Your task to perform on an android device: Go to Reddit.com Image 0: 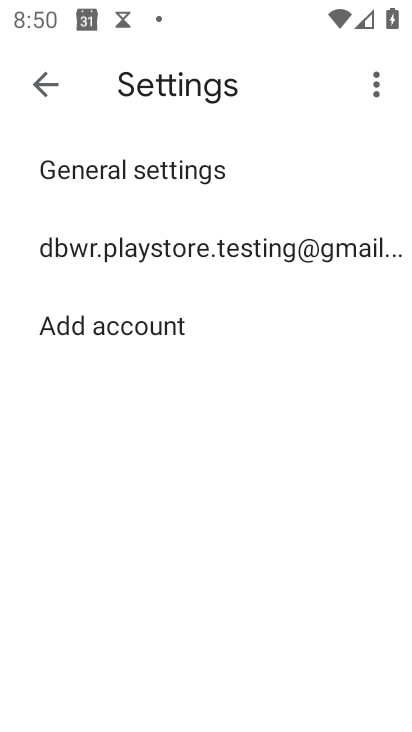
Step 0: press home button
Your task to perform on an android device: Go to Reddit.com Image 1: 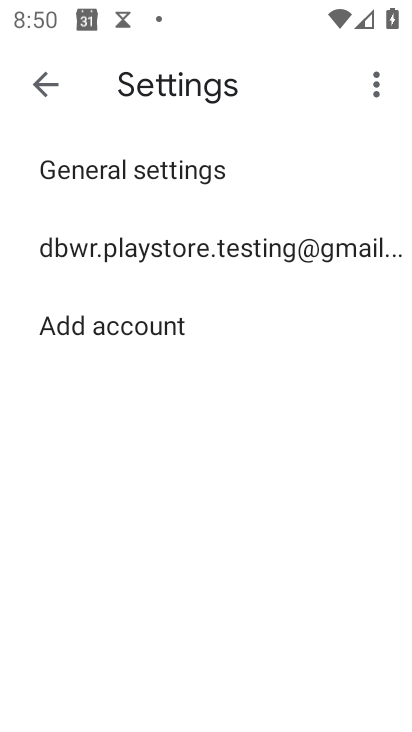
Step 1: press home button
Your task to perform on an android device: Go to Reddit.com Image 2: 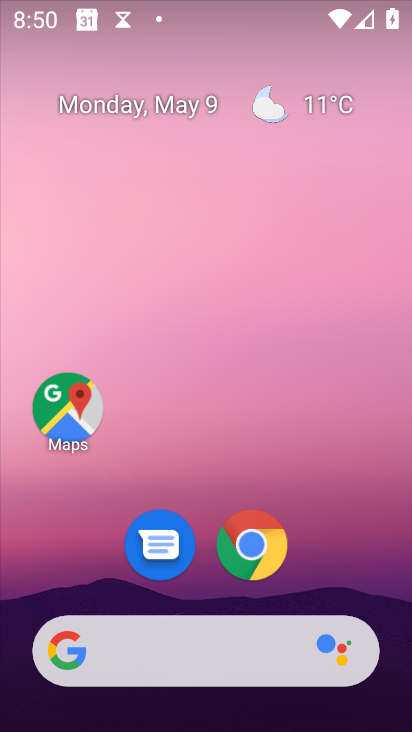
Step 2: click (257, 547)
Your task to perform on an android device: Go to Reddit.com Image 3: 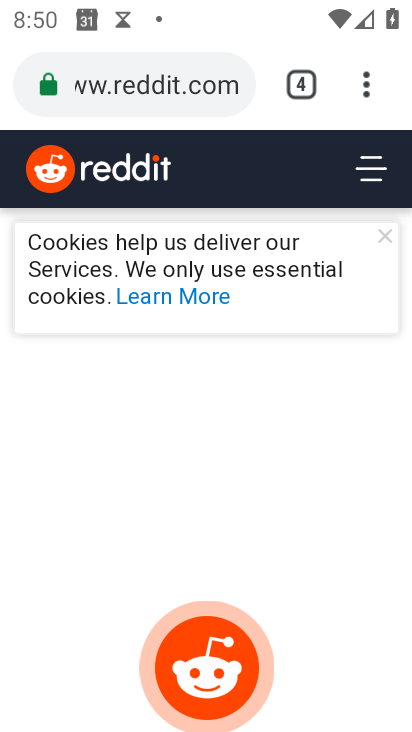
Step 3: task complete